Your task to perform on an android device: Open the phone app and click the voicemail tab. Image 0: 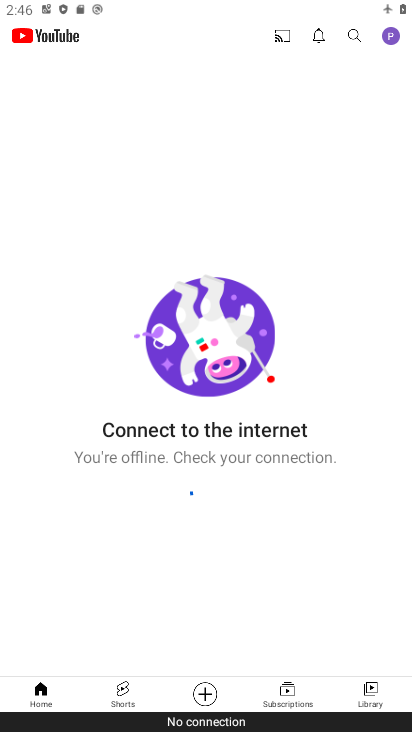
Step 0: press home button
Your task to perform on an android device: Open the phone app and click the voicemail tab. Image 1: 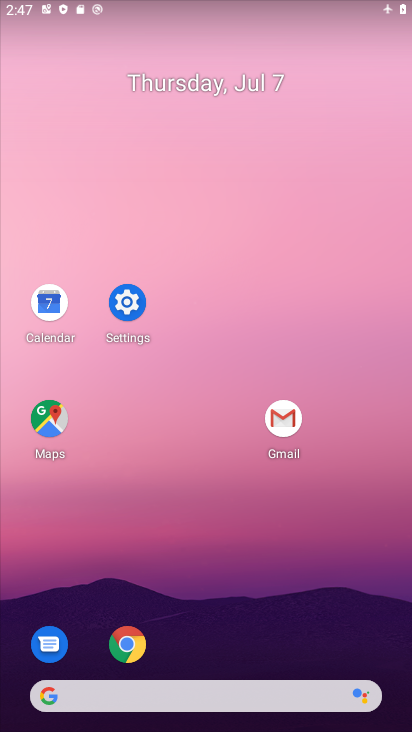
Step 1: drag from (409, 703) to (340, 192)
Your task to perform on an android device: Open the phone app and click the voicemail tab. Image 2: 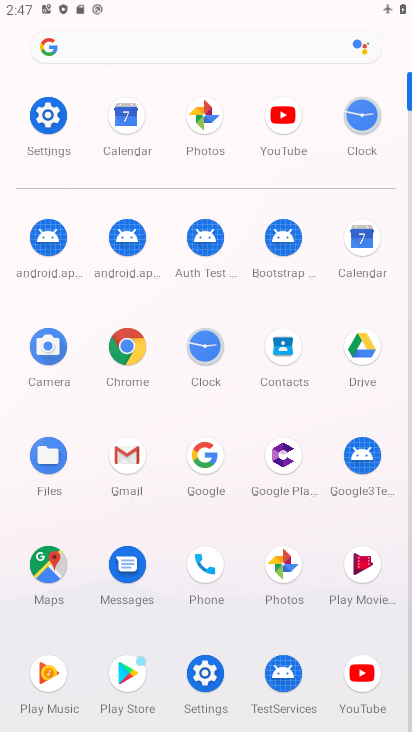
Step 2: click (204, 579)
Your task to perform on an android device: Open the phone app and click the voicemail tab. Image 3: 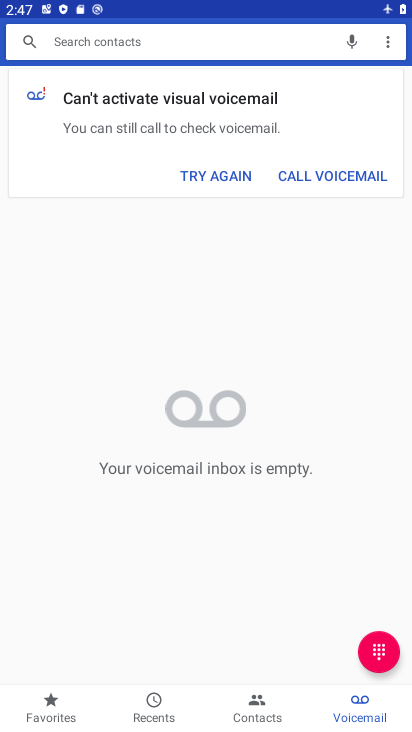
Step 3: click (367, 695)
Your task to perform on an android device: Open the phone app and click the voicemail tab. Image 4: 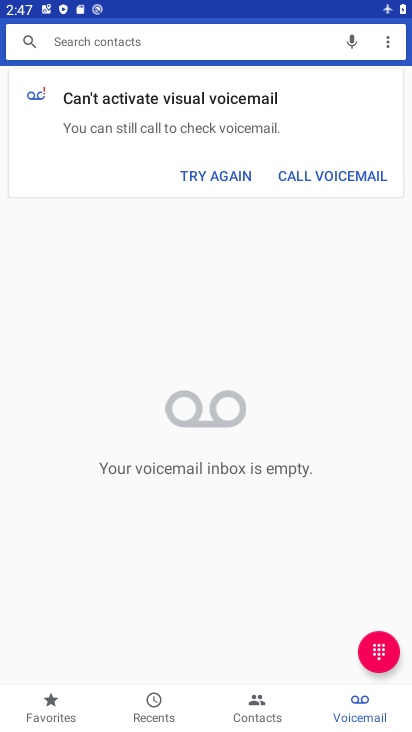
Step 4: click (354, 705)
Your task to perform on an android device: Open the phone app and click the voicemail tab. Image 5: 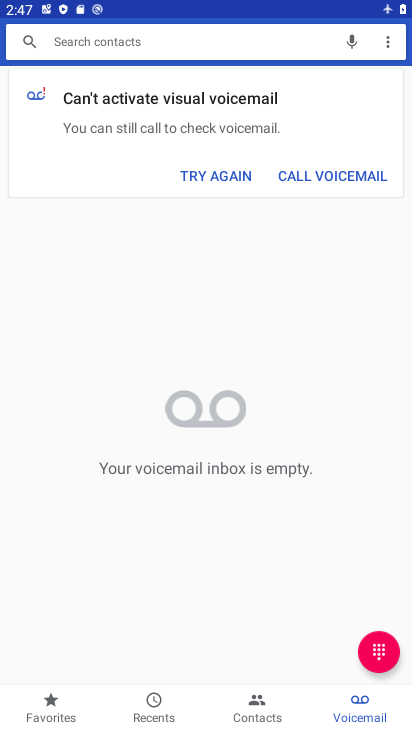
Step 5: task complete